Your task to perform on an android device: Open Wikipedia Image 0: 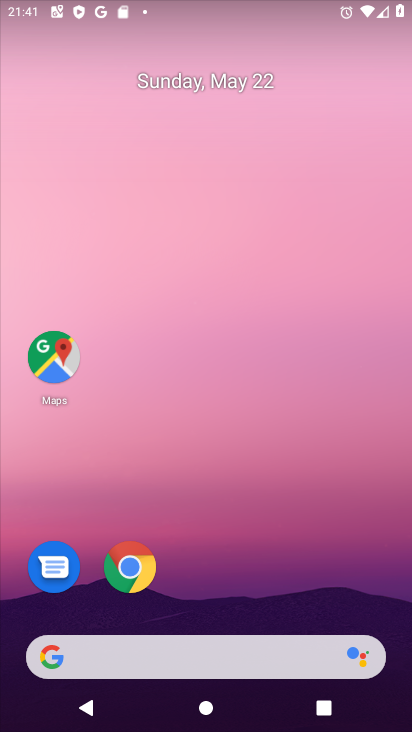
Step 0: click (139, 572)
Your task to perform on an android device: Open Wikipedia Image 1: 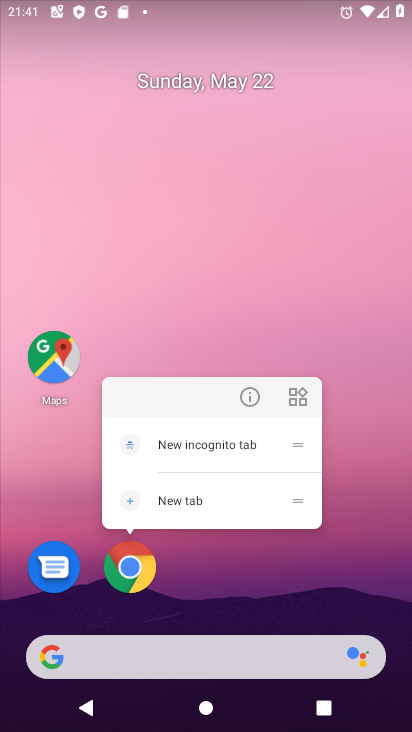
Step 1: click (135, 568)
Your task to perform on an android device: Open Wikipedia Image 2: 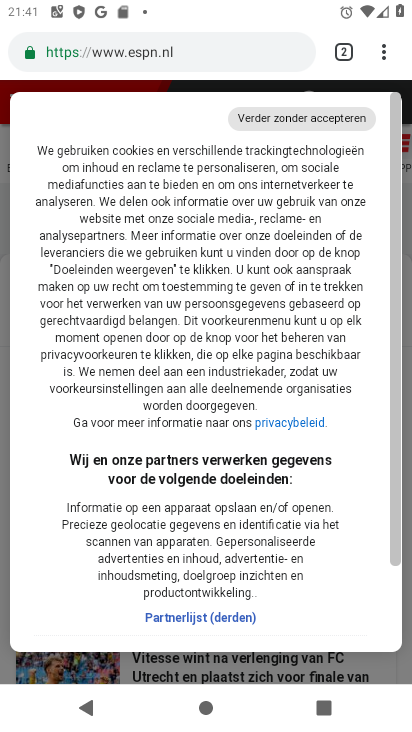
Step 2: click (131, 42)
Your task to perform on an android device: Open Wikipedia Image 3: 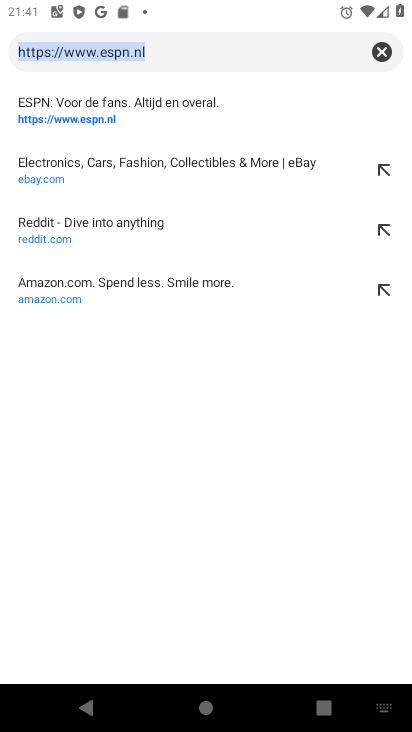
Step 3: type "wikipedia"
Your task to perform on an android device: Open Wikipedia Image 4: 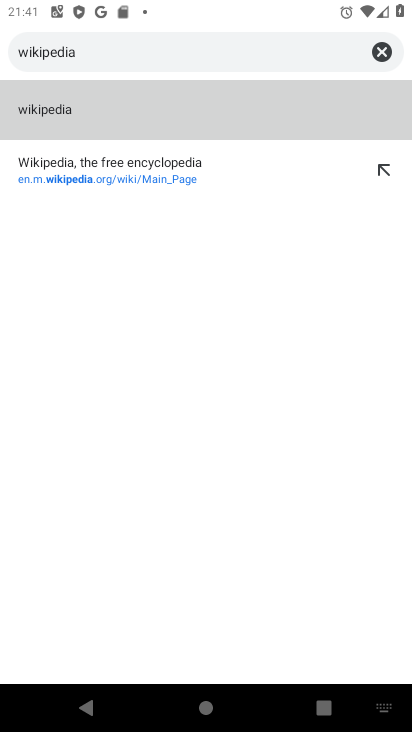
Step 4: click (154, 159)
Your task to perform on an android device: Open Wikipedia Image 5: 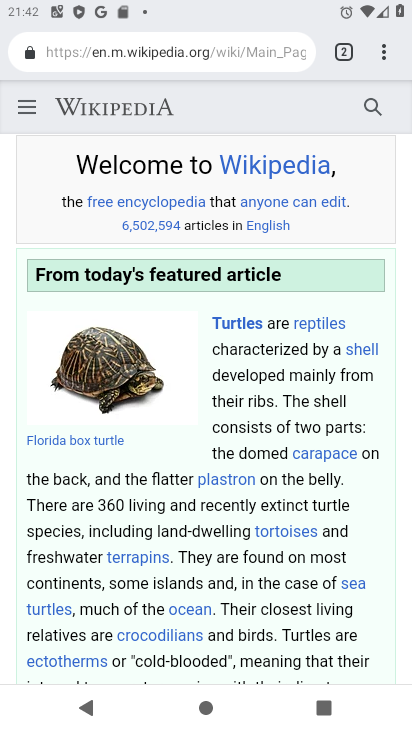
Step 5: task complete